Your task to perform on an android device: Open Yahoo.com Image 0: 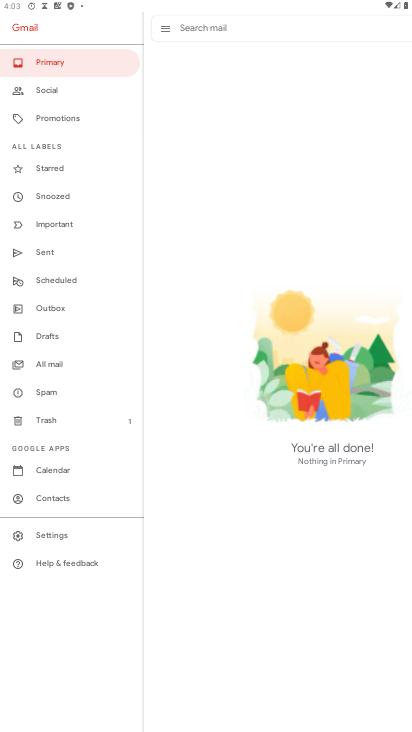
Step 0: press home button
Your task to perform on an android device: Open Yahoo.com Image 1: 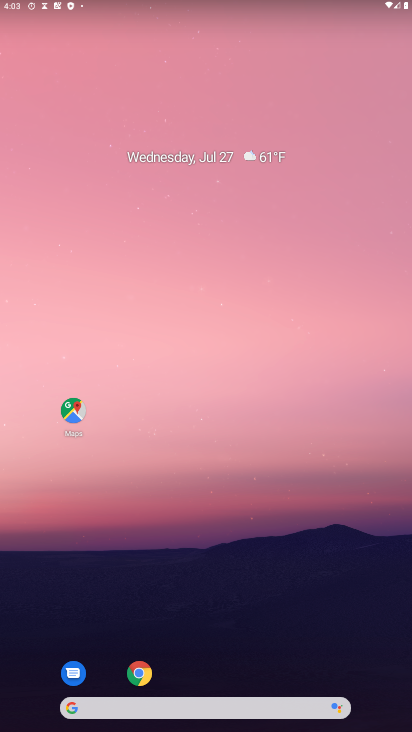
Step 1: click (108, 695)
Your task to perform on an android device: Open Yahoo.com Image 2: 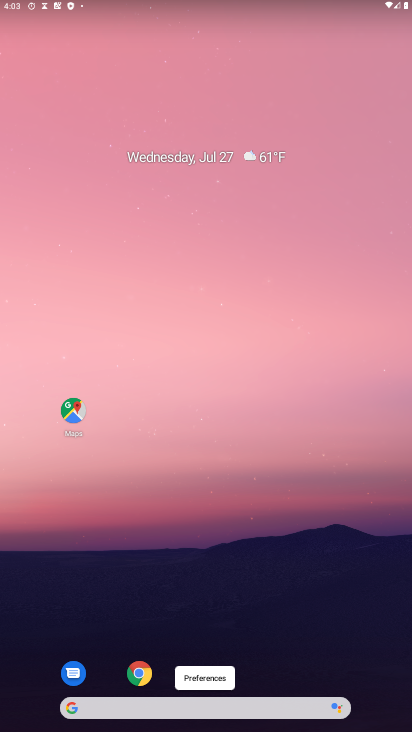
Step 2: click (151, 719)
Your task to perform on an android device: Open Yahoo.com Image 3: 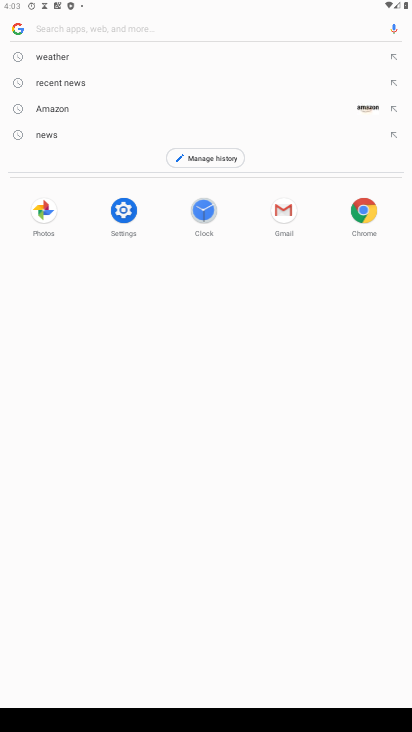
Step 3: type "Yahoo.com"
Your task to perform on an android device: Open Yahoo.com Image 4: 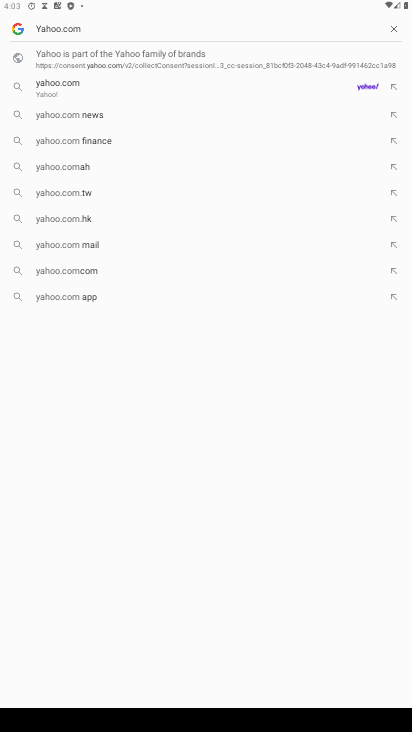
Step 4: click (66, 88)
Your task to perform on an android device: Open Yahoo.com Image 5: 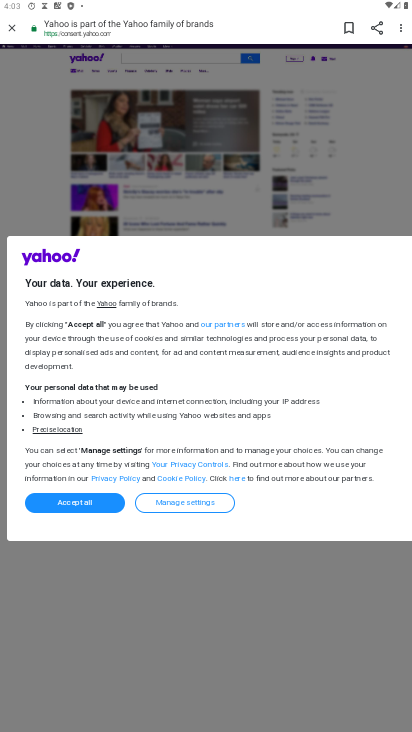
Step 5: task complete